Your task to perform on an android device: turn off notifications in google photos Image 0: 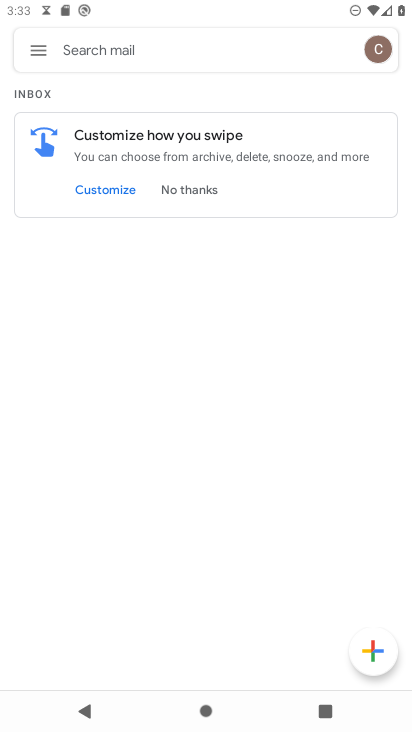
Step 0: press home button
Your task to perform on an android device: turn off notifications in google photos Image 1: 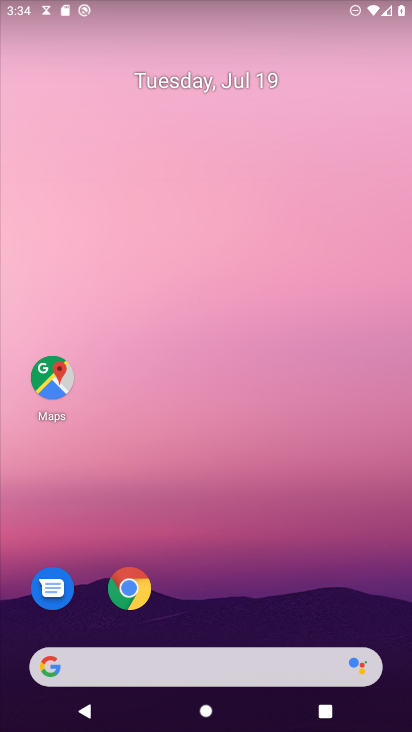
Step 1: drag from (224, 562) to (192, 263)
Your task to perform on an android device: turn off notifications in google photos Image 2: 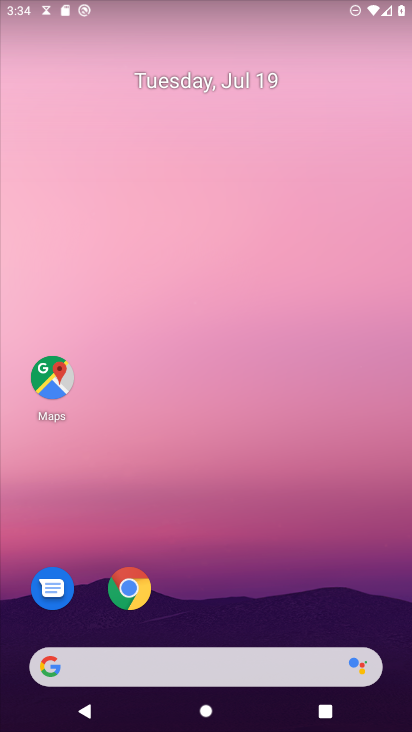
Step 2: drag from (229, 546) to (230, 275)
Your task to perform on an android device: turn off notifications in google photos Image 3: 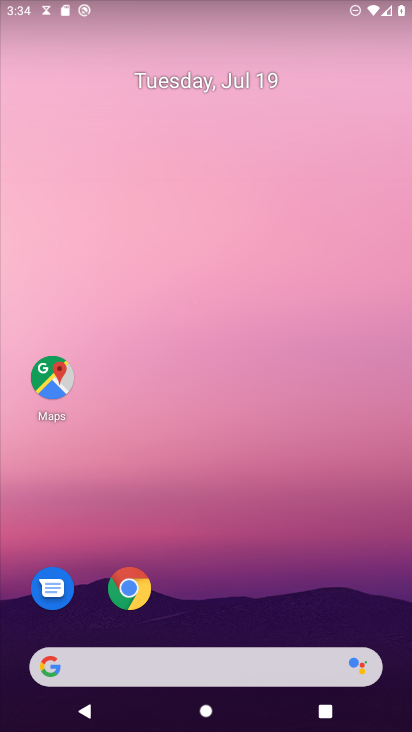
Step 3: drag from (186, 582) to (228, 75)
Your task to perform on an android device: turn off notifications in google photos Image 4: 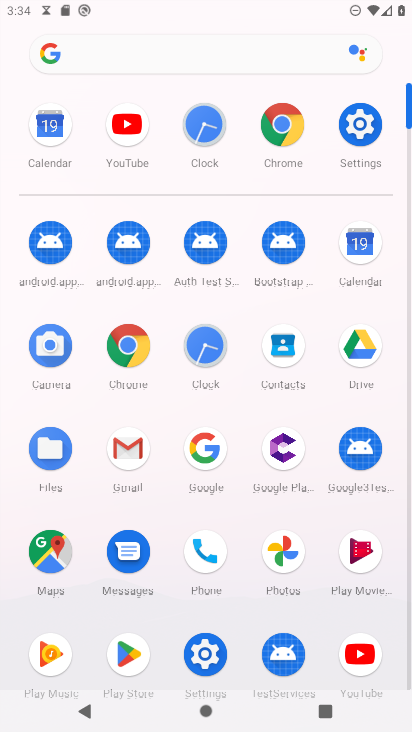
Step 4: click (282, 632)
Your task to perform on an android device: turn off notifications in google photos Image 5: 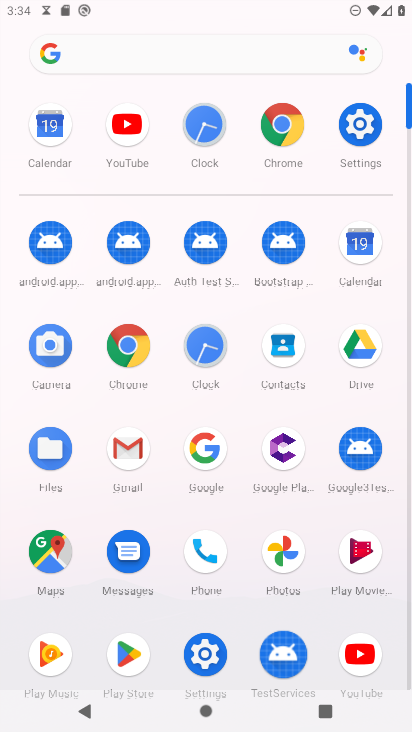
Step 5: click (285, 541)
Your task to perform on an android device: turn off notifications in google photos Image 6: 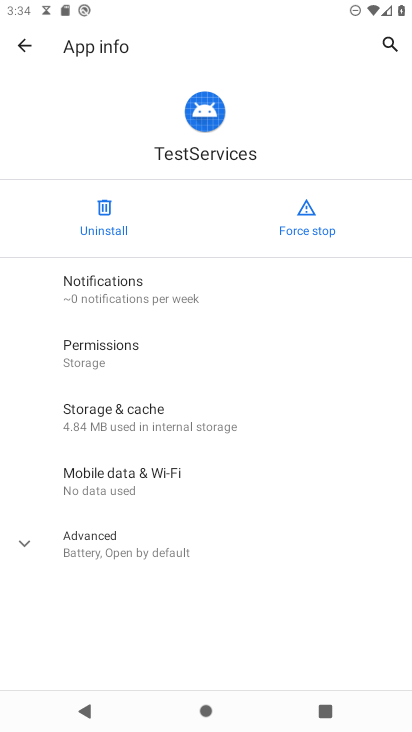
Step 6: click (18, 48)
Your task to perform on an android device: turn off notifications in google photos Image 7: 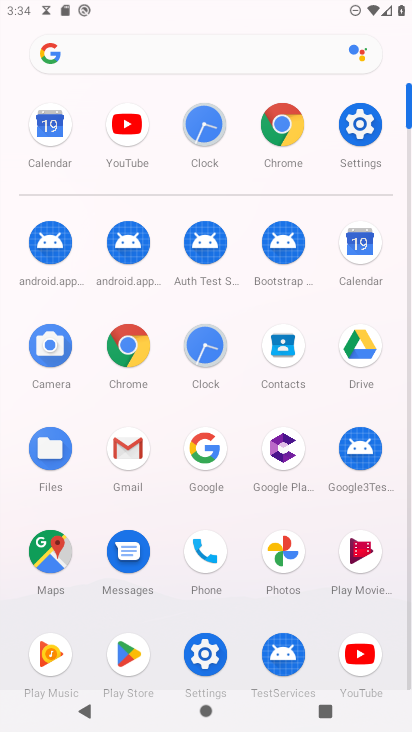
Step 7: click (298, 557)
Your task to perform on an android device: turn off notifications in google photos Image 8: 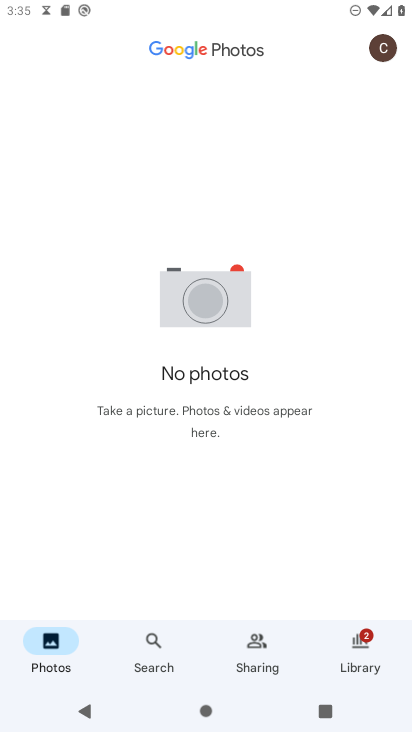
Step 8: click (383, 51)
Your task to perform on an android device: turn off notifications in google photos Image 9: 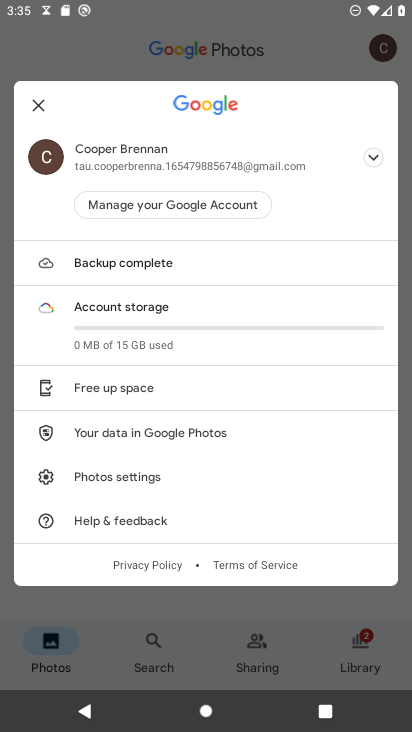
Step 9: click (105, 476)
Your task to perform on an android device: turn off notifications in google photos Image 10: 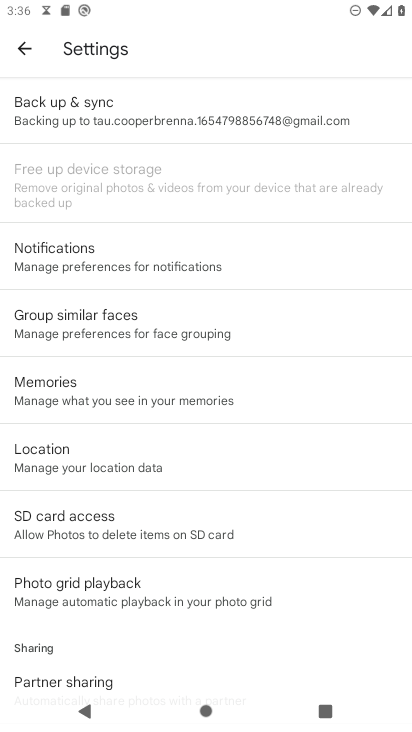
Step 10: click (109, 248)
Your task to perform on an android device: turn off notifications in google photos Image 11: 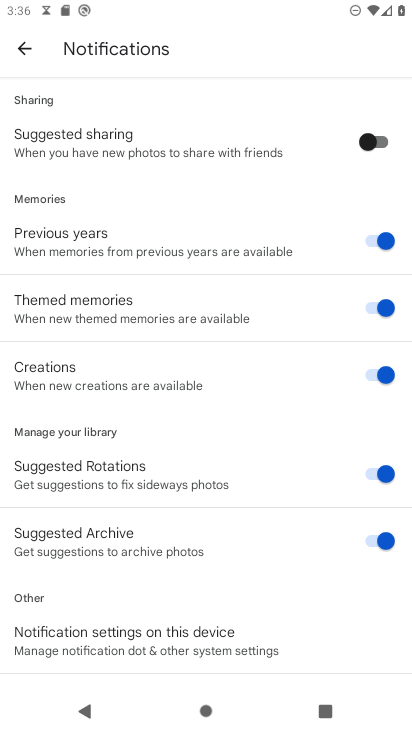
Step 11: task complete